Your task to perform on an android device: Open Yahoo.com Image 0: 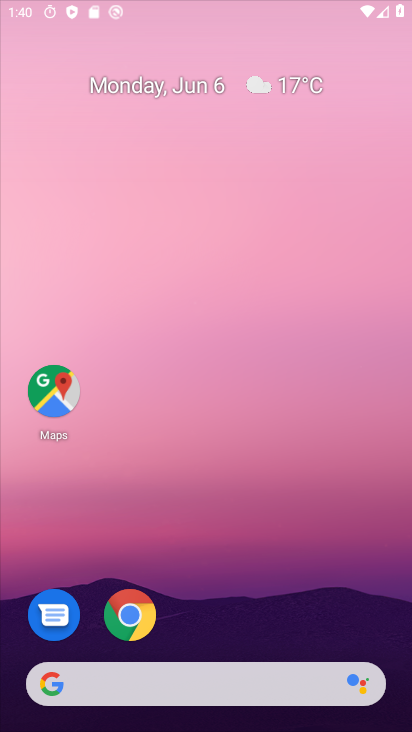
Step 0: drag from (149, 637) to (177, 148)
Your task to perform on an android device: Open Yahoo.com Image 1: 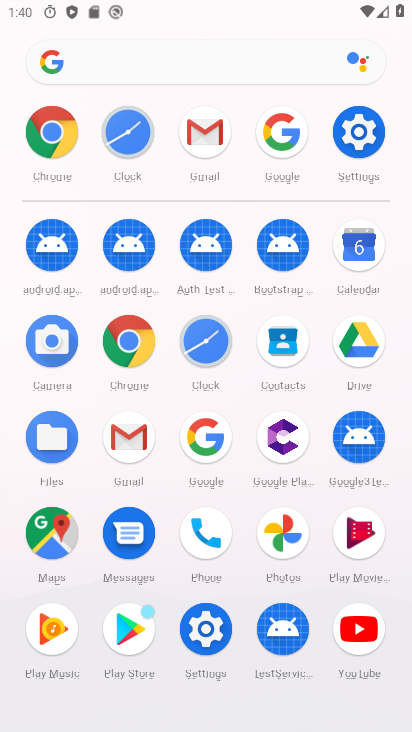
Step 1: click (145, 59)
Your task to perform on an android device: Open Yahoo.com Image 2: 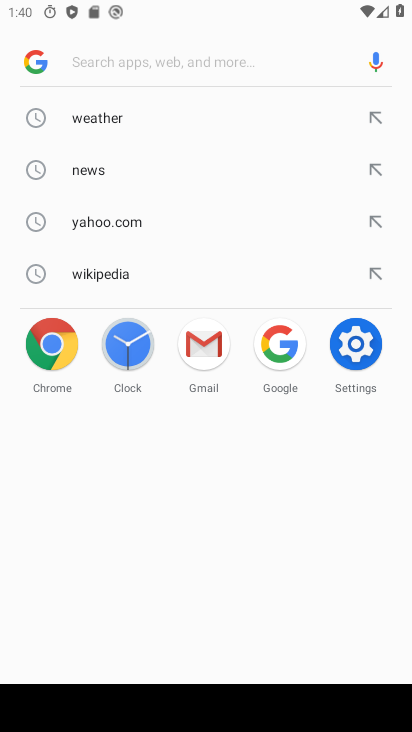
Step 2: type "Yahoo.com"
Your task to perform on an android device: Open Yahoo.com Image 3: 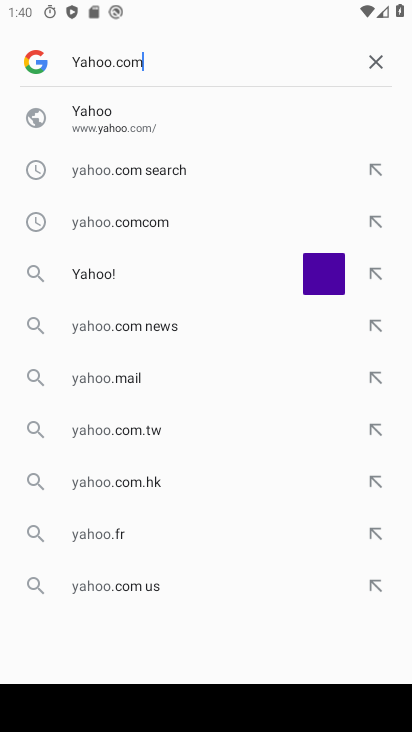
Step 3: type ""
Your task to perform on an android device: Open Yahoo.com Image 4: 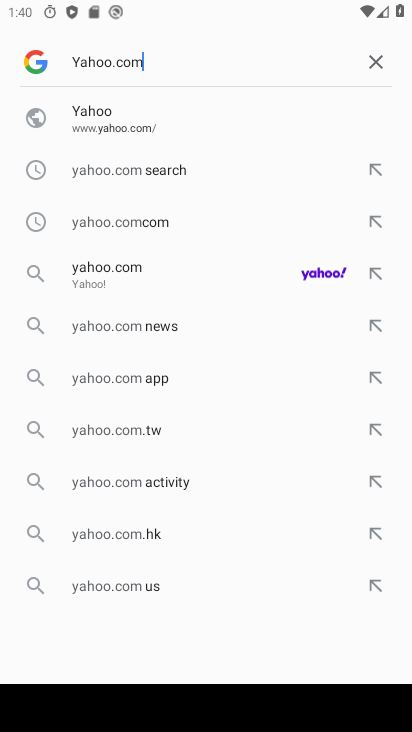
Step 4: click (148, 283)
Your task to perform on an android device: Open Yahoo.com Image 5: 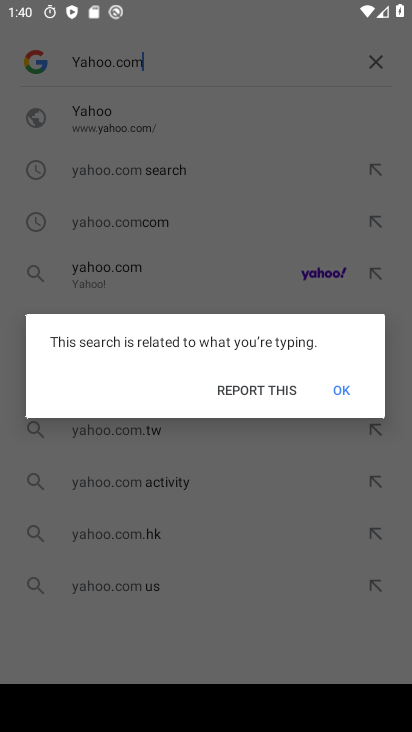
Step 5: click (342, 392)
Your task to perform on an android device: Open Yahoo.com Image 6: 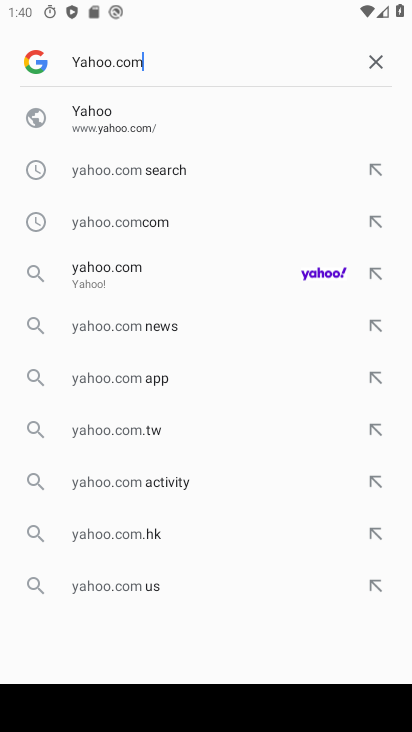
Step 6: drag from (207, 552) to (198, 242)
Your task to perform on an android device: Open Yahoo.com Image 7: 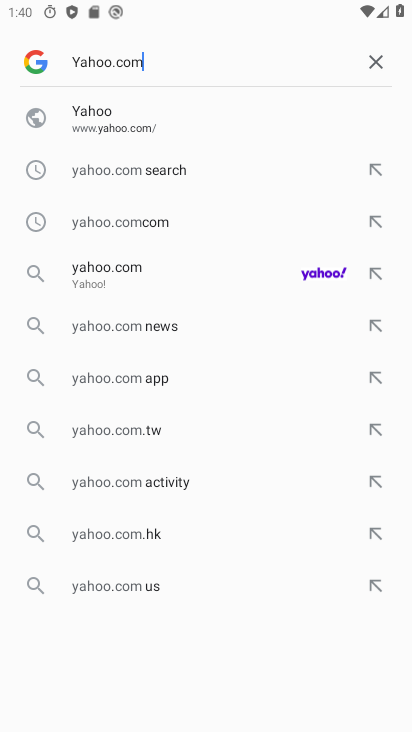
Step 7: click (220, 283)
Your task to perform on an android device: Open Yahoo.com Image 8: 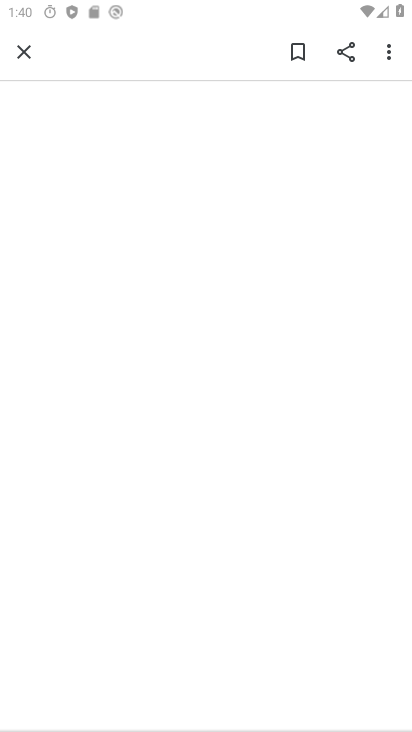
Step 8: task complete